Your task to perform on an android device: open app "Duolingo: language lessons" (install if not already installed) Image 0: 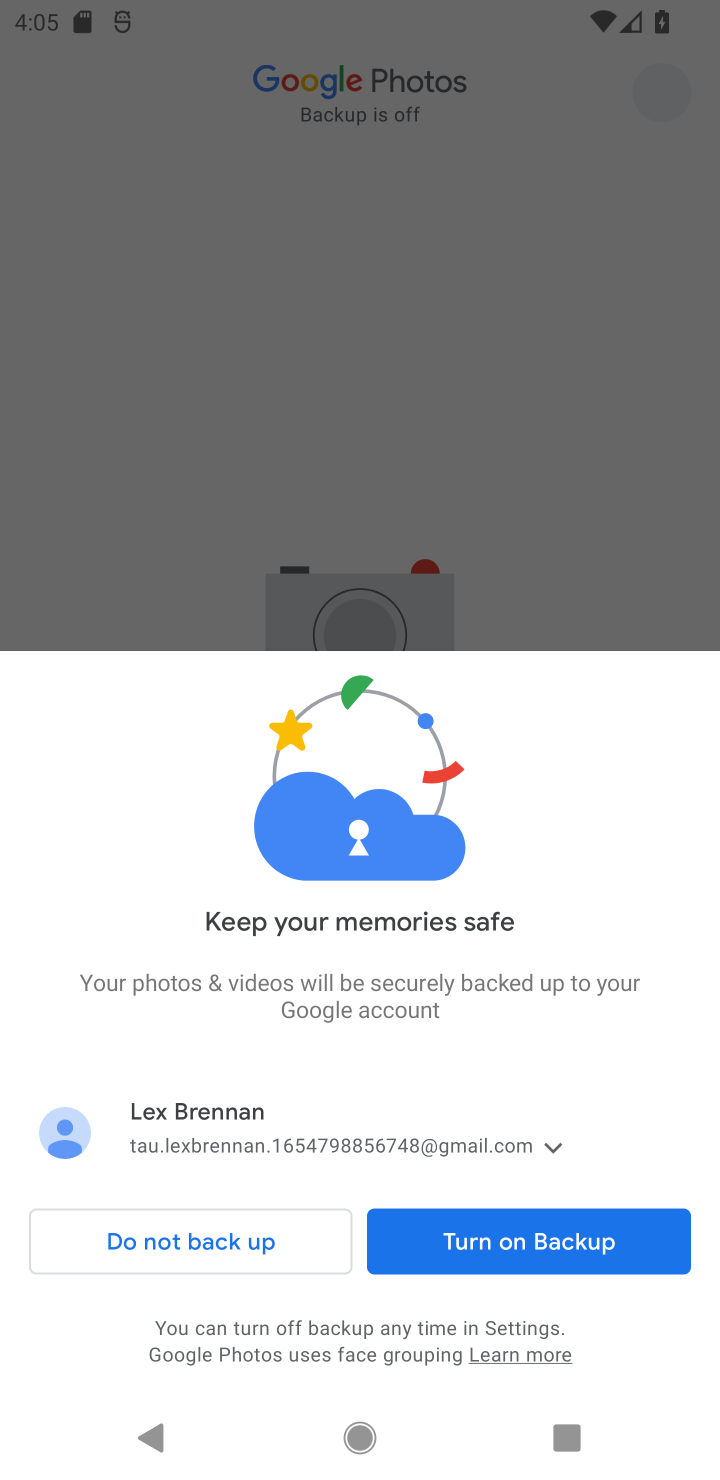
Step 0: press back button
Your task to perform on an android device: open app "Duolingo: language lessons" (install if not already installed) Image 1: 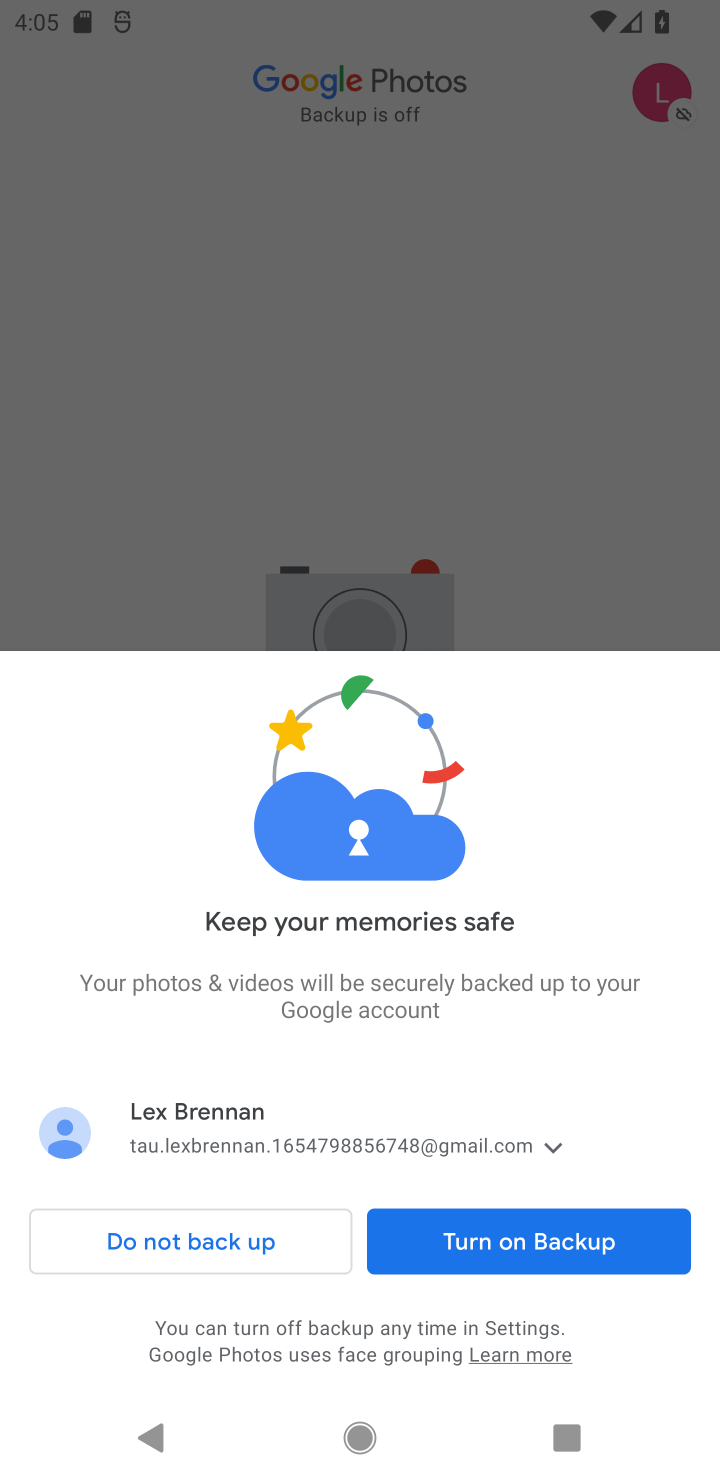
Step 1: press home button
Your task to perform on an android device: open app "Duolingo: language lessons" (install if not already installed) Image 2: 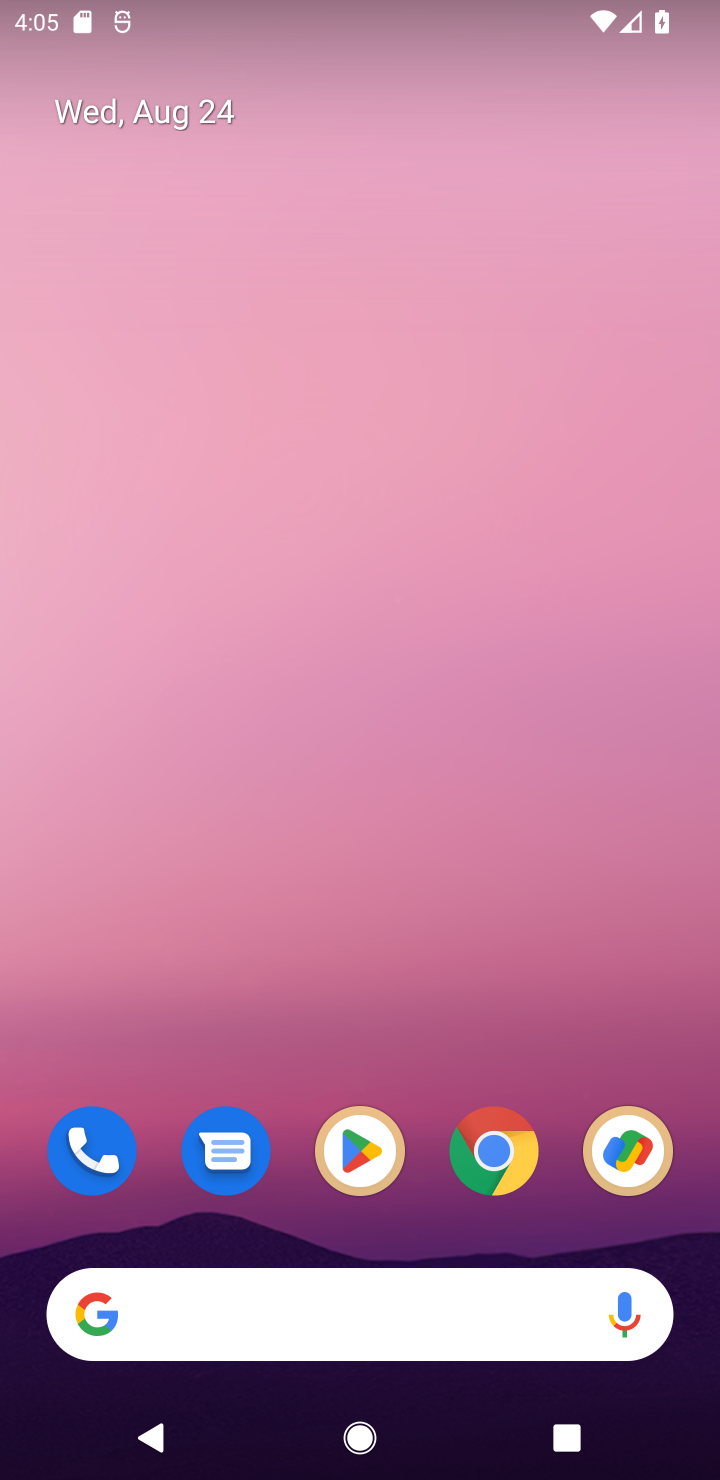
Step 2: click (329, 1167)
Your task to perform on an android device: open app "Duolingo: language lessons" (install if not already installed) Image 3: 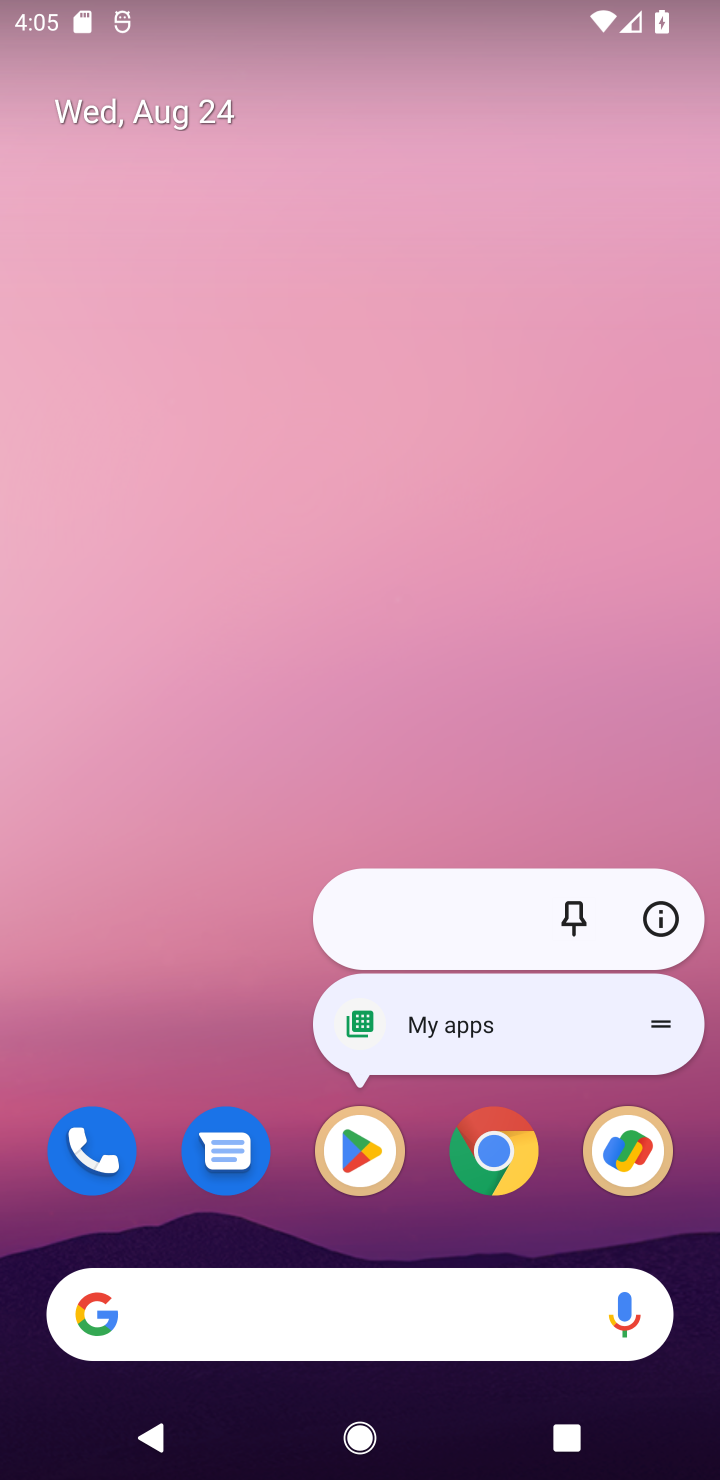
Step 3: click (348, 1169)
Your task to perform on an android device: open app "Duolingo: language lessons" (install if not already installed) Image 4: 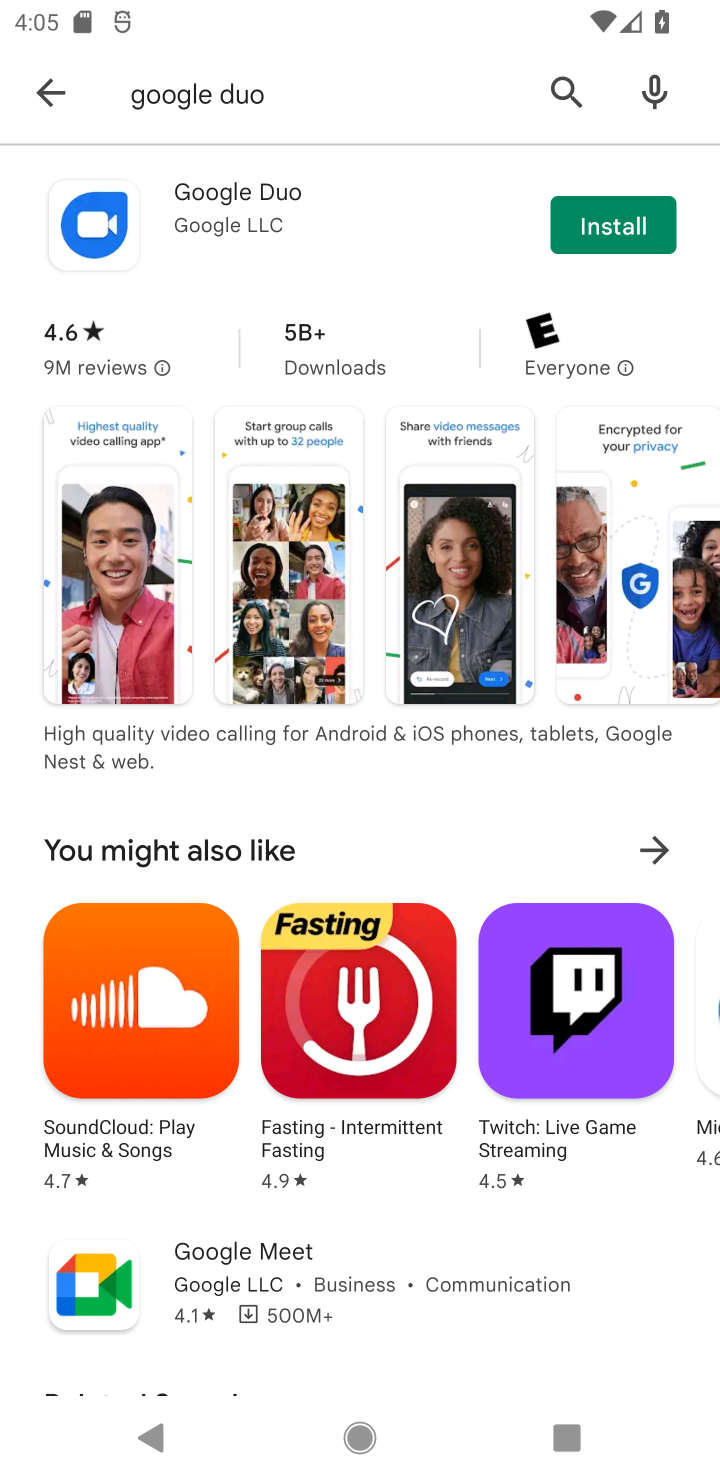
Step 4: click (48, 93)
Your task to perform on an android device: open app "Duolingo: language lessons" (install if not already installed) Image 5: 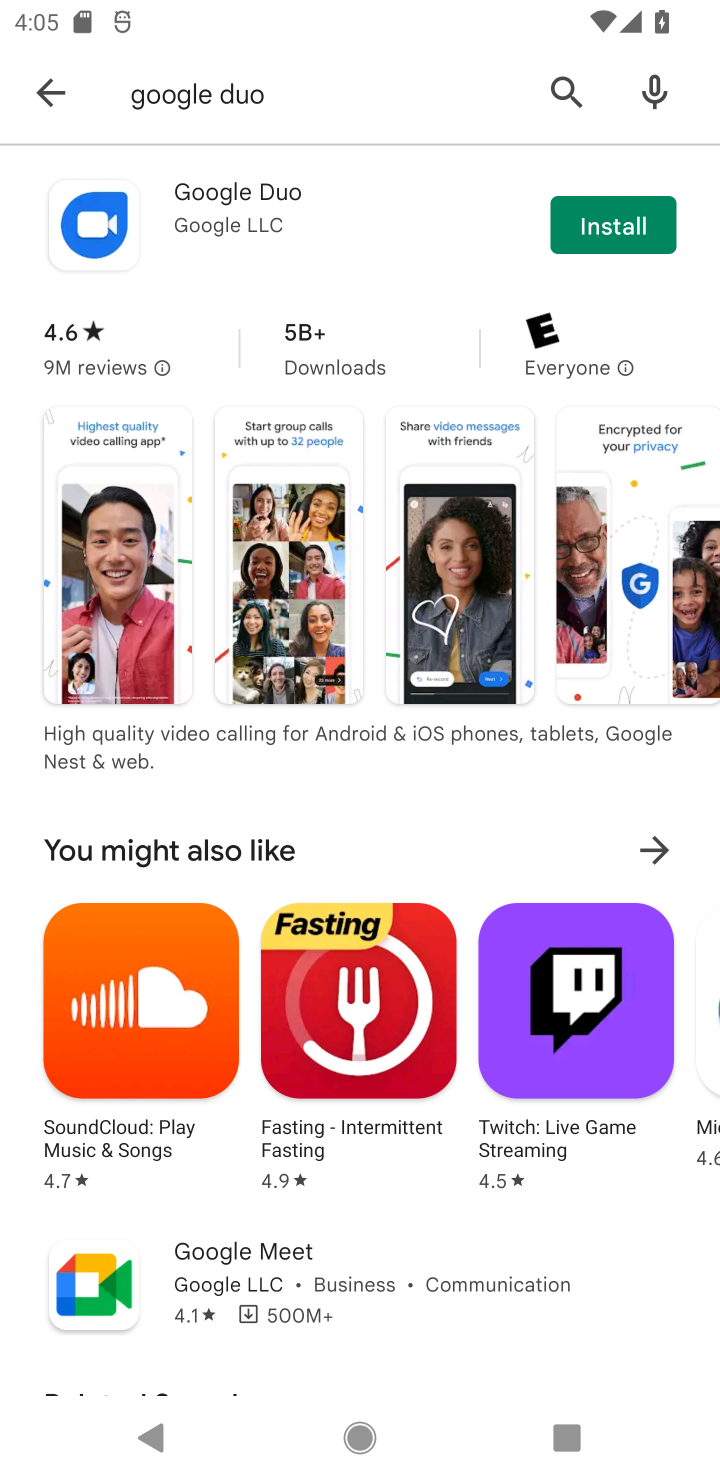
Step 5: click (52, 95)
Your task to perform on an android device: open app "Duolingo: language lessons" (install if not already installed) Image 6: 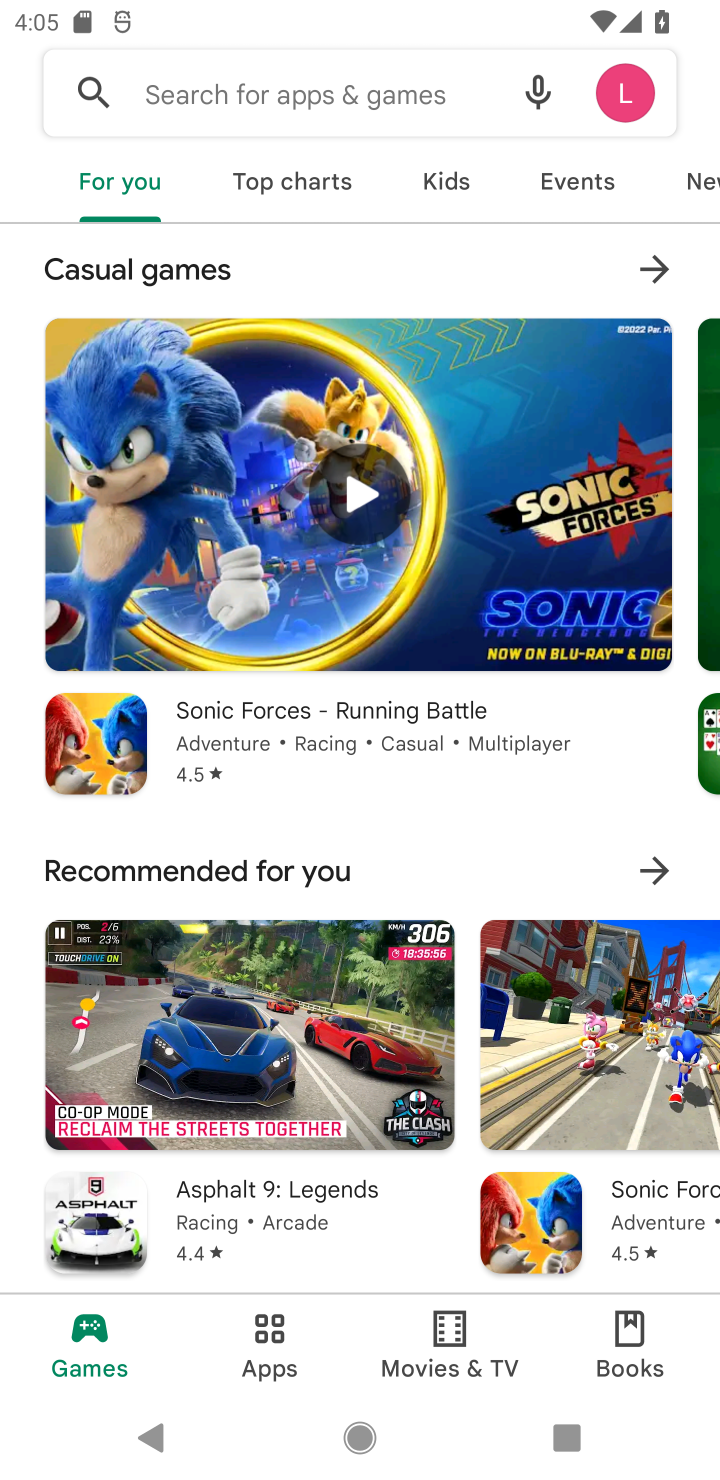
Step 6: click (276, 93)
Your task to perform on an android device: open app "Duolingo: language lessons" (install if not already installed) Image 7: 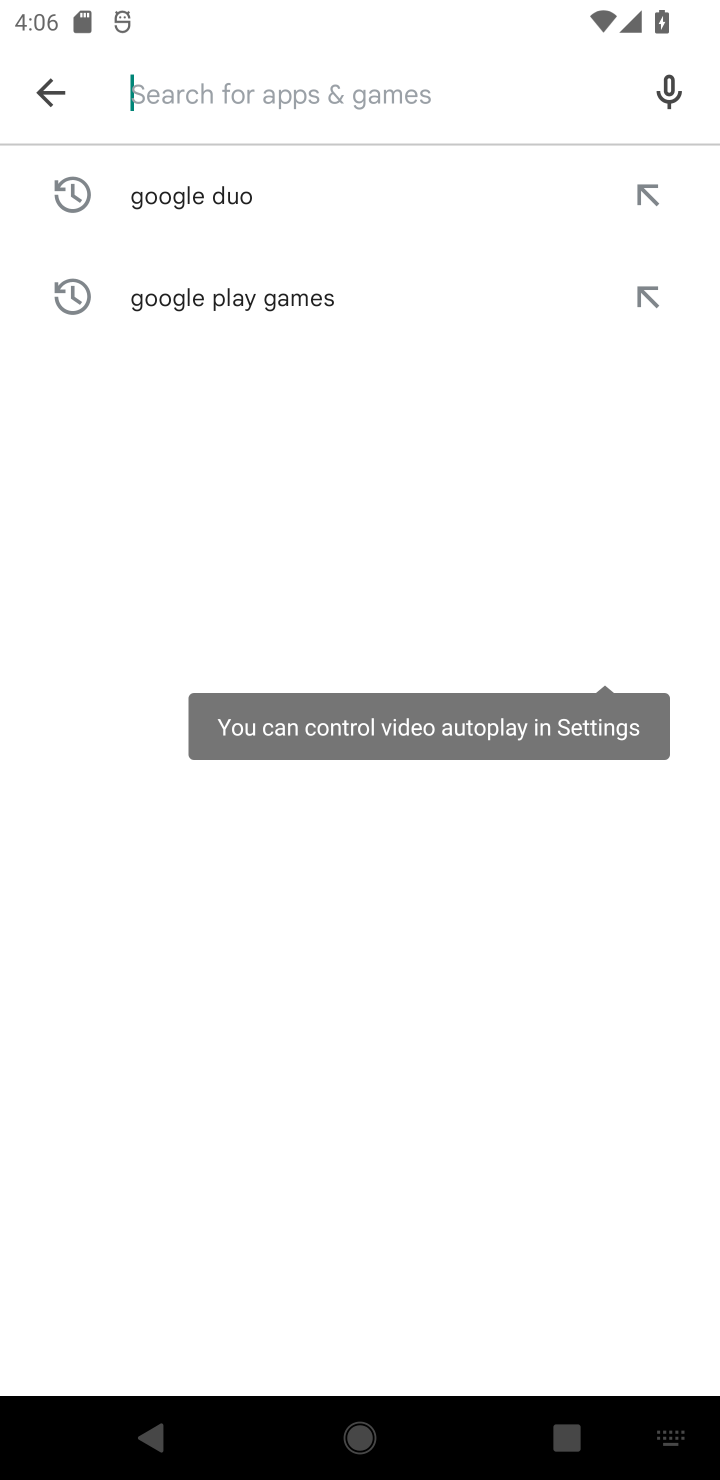
Step 7: type "Duolingo"
Your task to perform on an android device: open app "Duolingo: language lessons" (install if not already installed) Image 8: 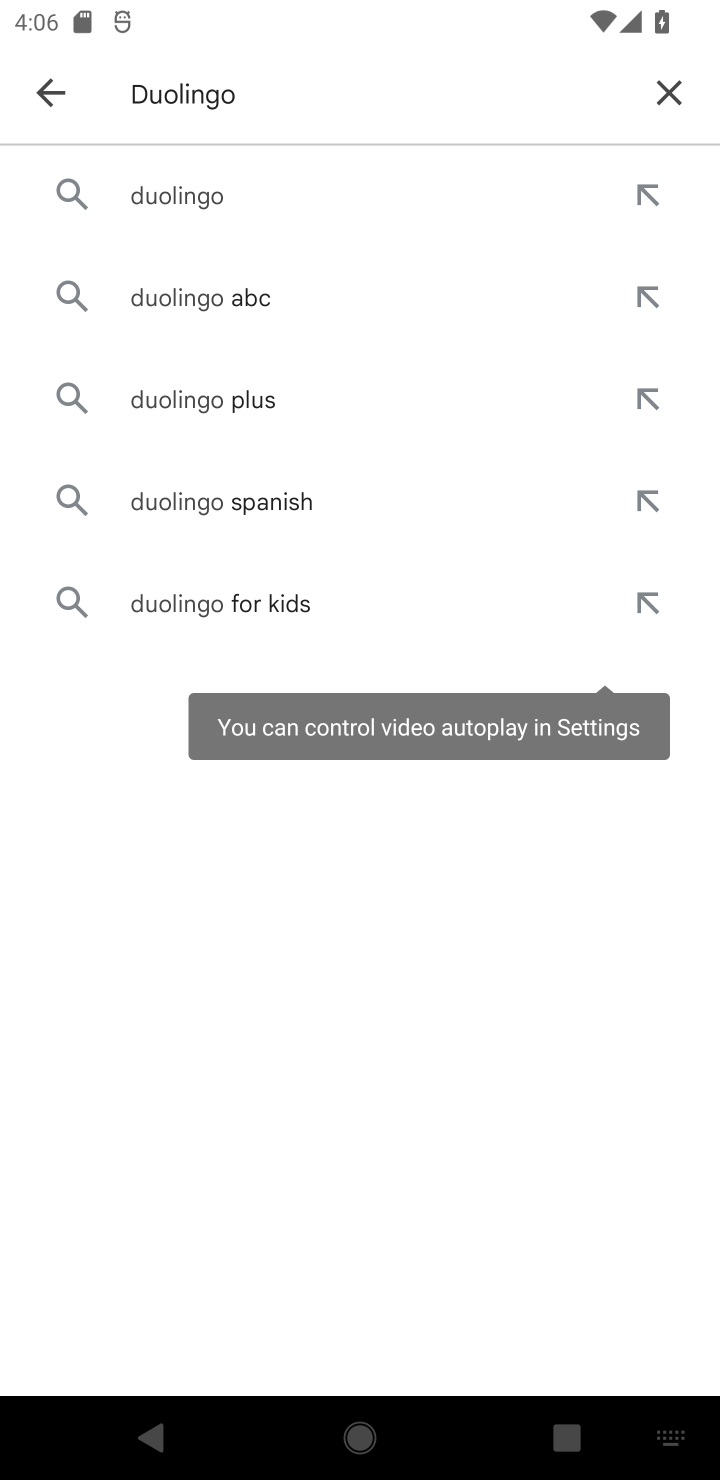
Step 8: click (217, 202)
Your task to perform on an android device: open app "Duolingo: language lessons" (install if not already installed) Image 9: 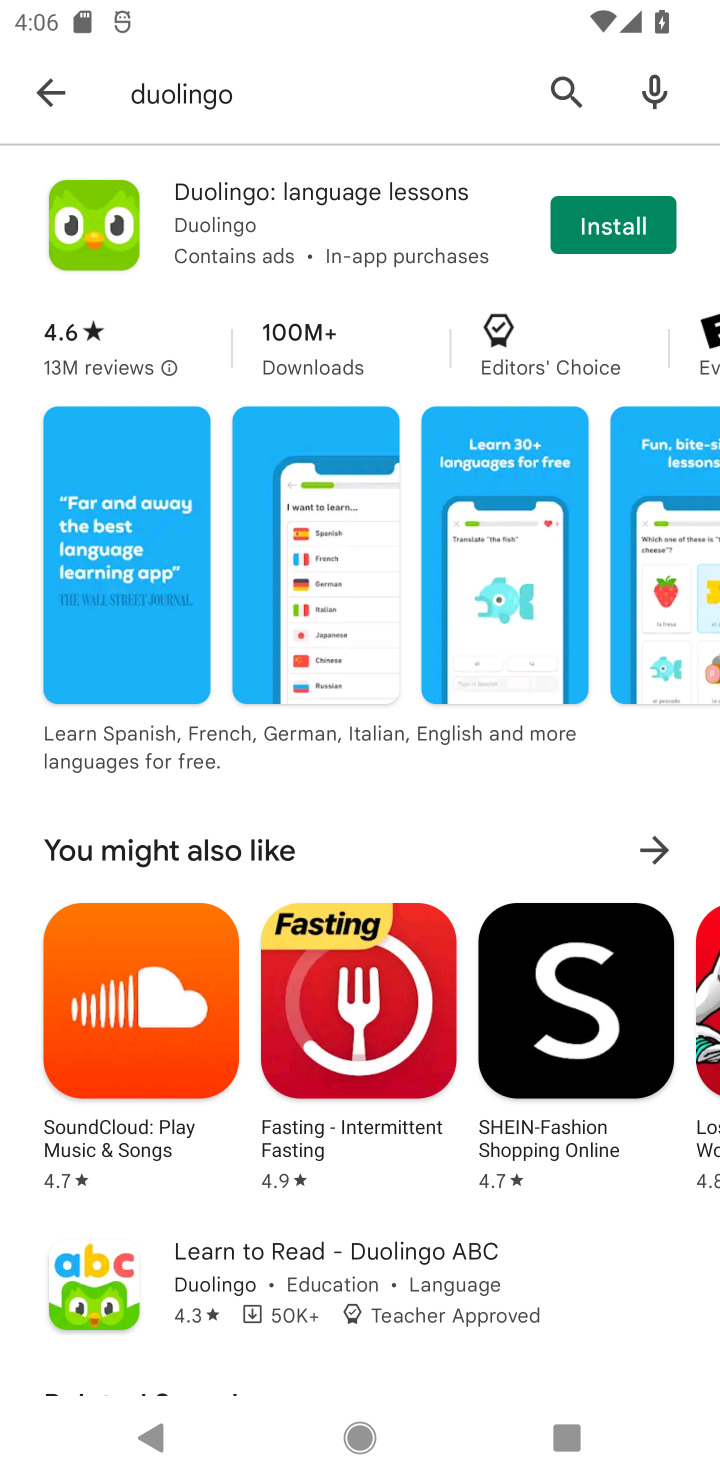
Step 9: click (606, 235)
Your task to perform on an android device: open app "Duolingo: language lessons" (install if not already installed) Image 10: 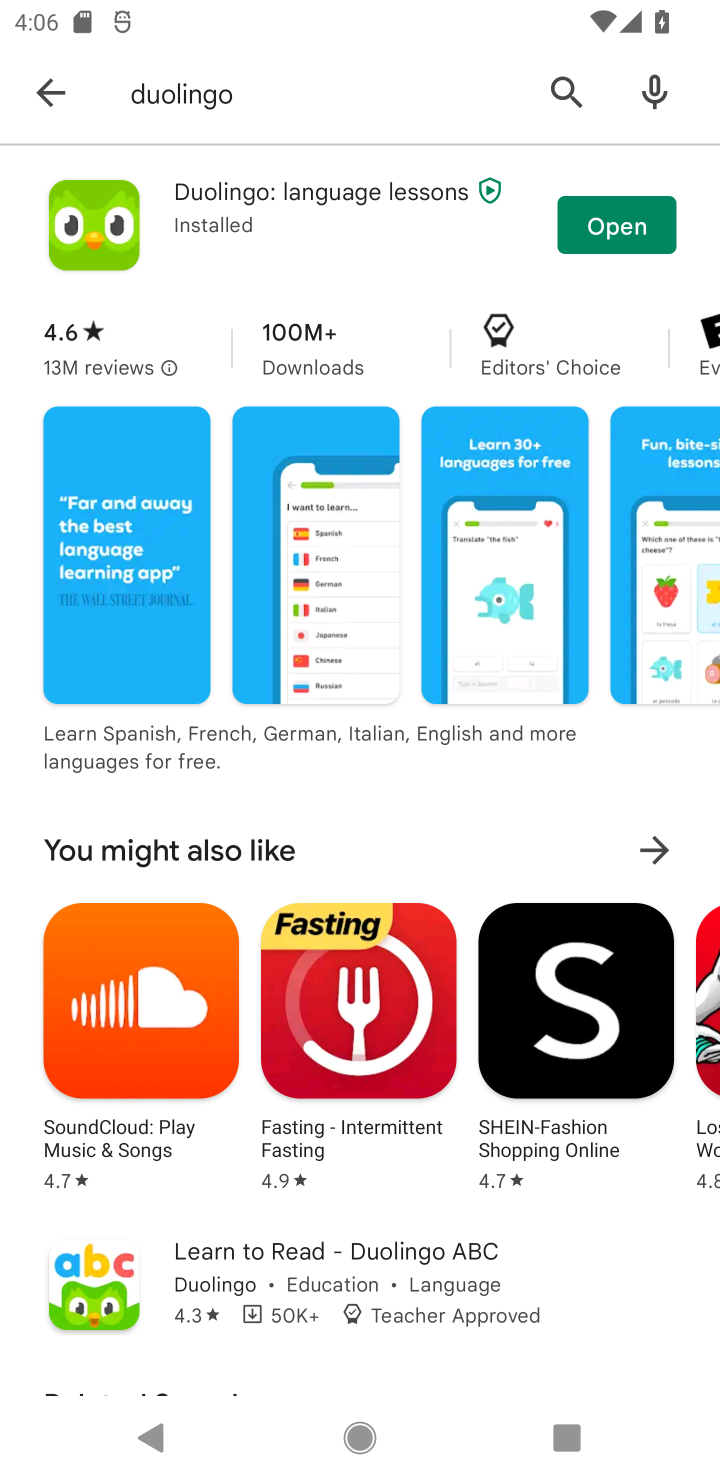
Step 10: click (638, 249)
Your task to perform on an android device: open app "Duolingo: language lessons" (install if not already installed) Image 11: 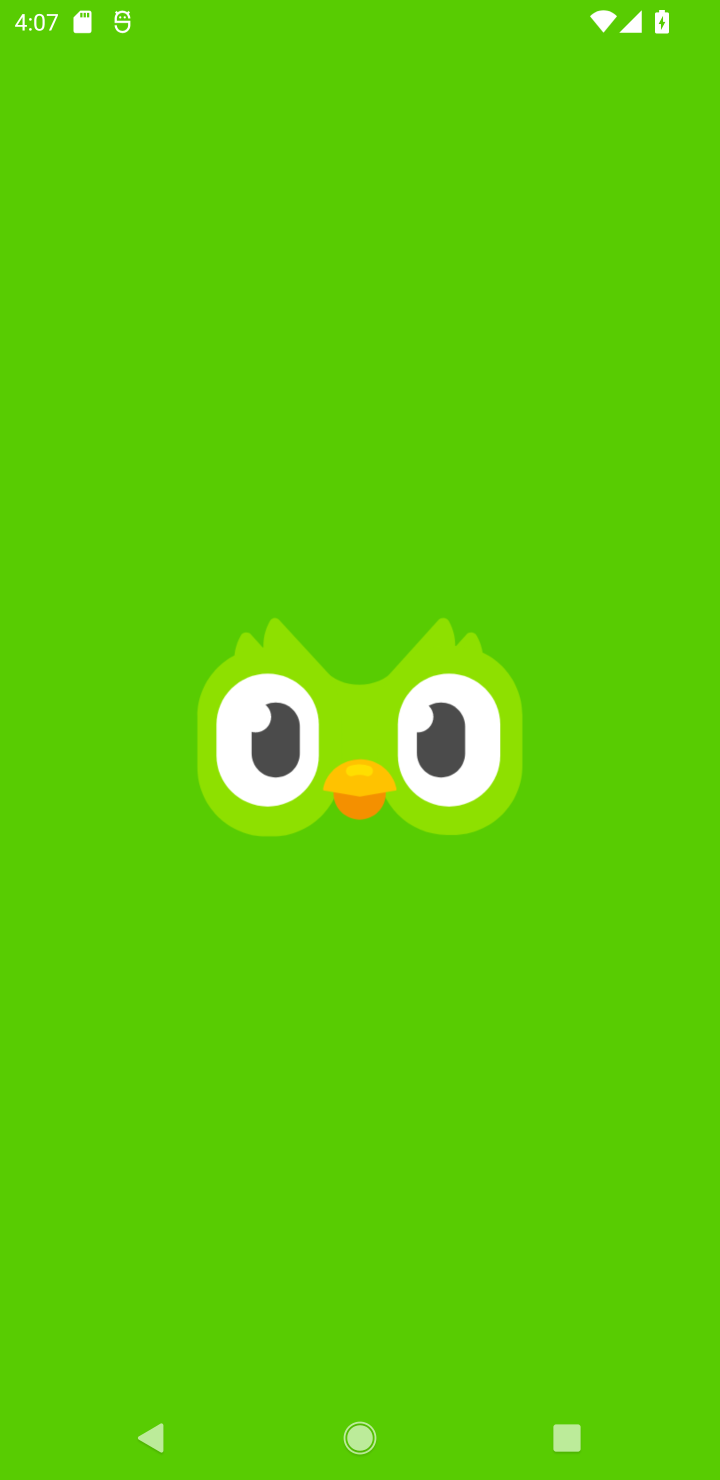
Step 11: task complete